Your task to perform on an android device: When is my next appointment? Image 0: 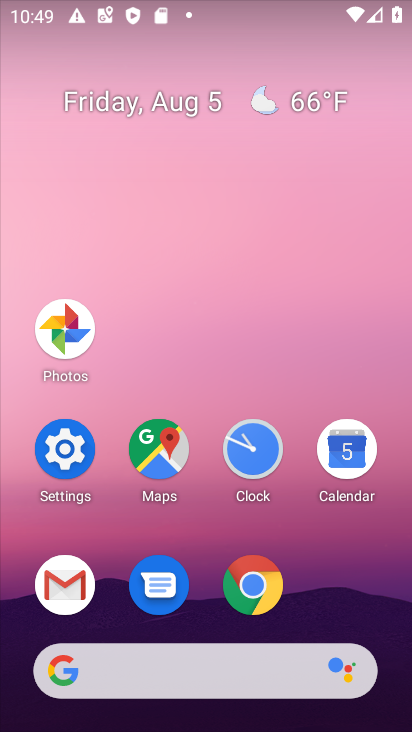
Step 0: click (350, 454)
Your task to perform on an android device: When is my next appointment? Image 1: 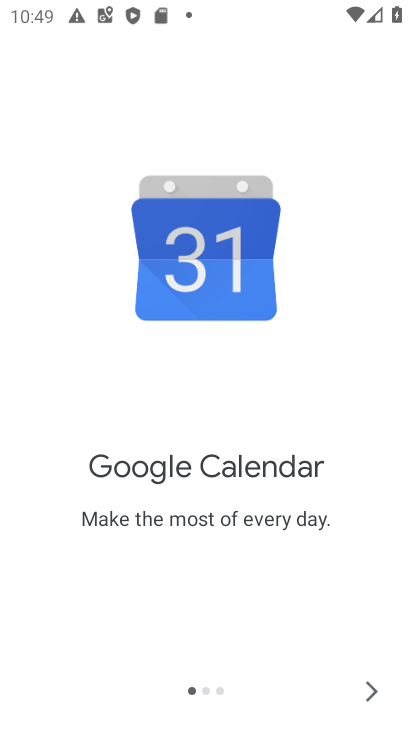
Step 1: click (372, 693)
Your task to perform on an android device: When is my next appointment? Image 2: 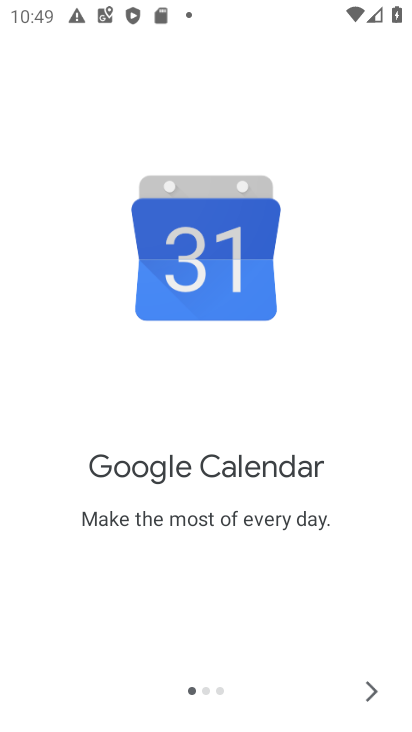
Step 2: click (372, 693)
Your task to perform on an android device: When is my next appointment? Image 3: 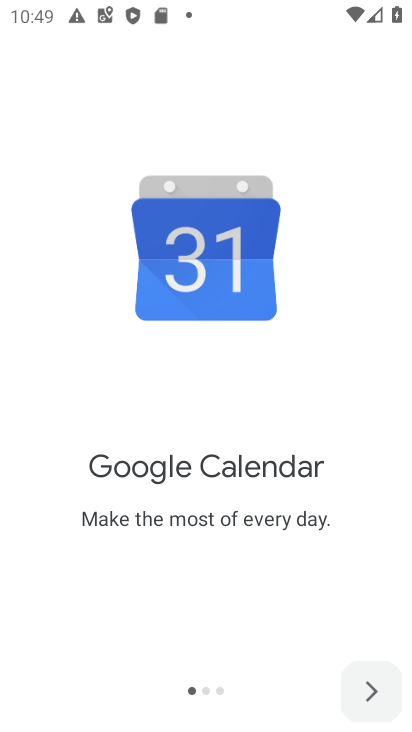
Step 3: click (372, 693)
Your task to perform on an android device: When is my next appointment? Image 4: 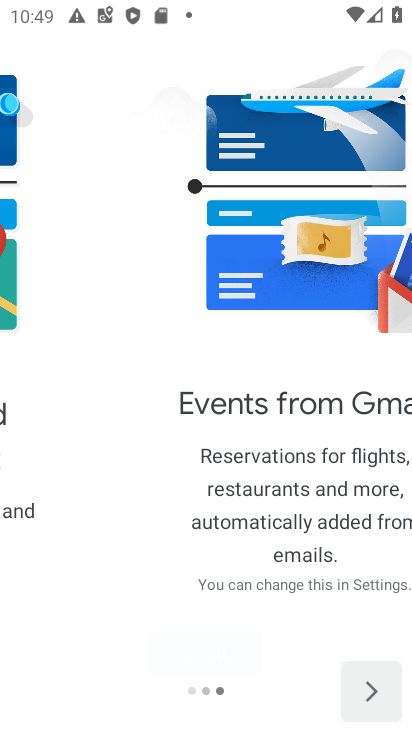
Step 4: click (372, 693)
Your task to perform on an android device: When is my next appointment? Image 5: 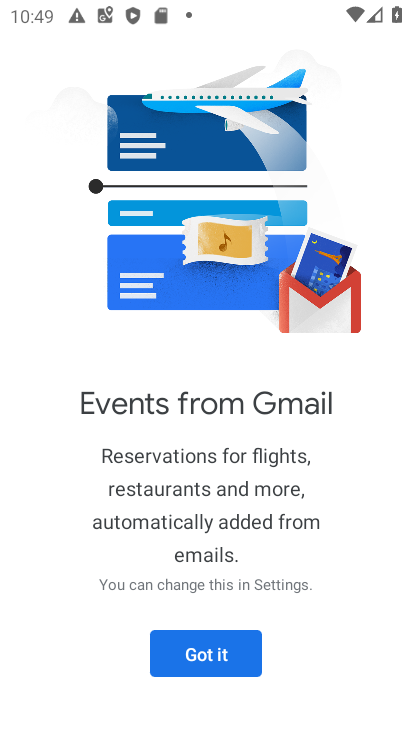
Step 5: click (222, 646)
Your task to perform on an android device: When is my next appointment? Image 6: 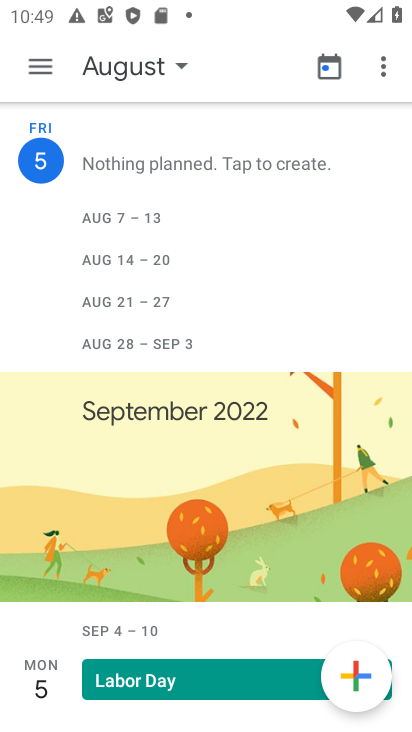
Step 6: click (37, 59)
Your task to perform on an android device: When is my next appointment? Image 7: 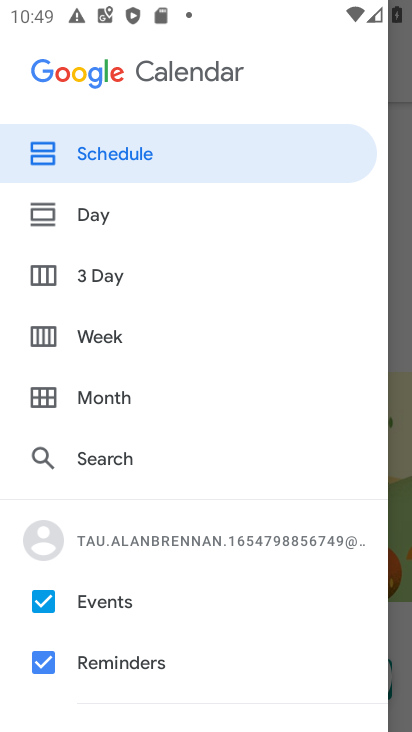
Step 7: click (93, 322)
Your task to perform on an android device: When is my next appointment? Image 8: 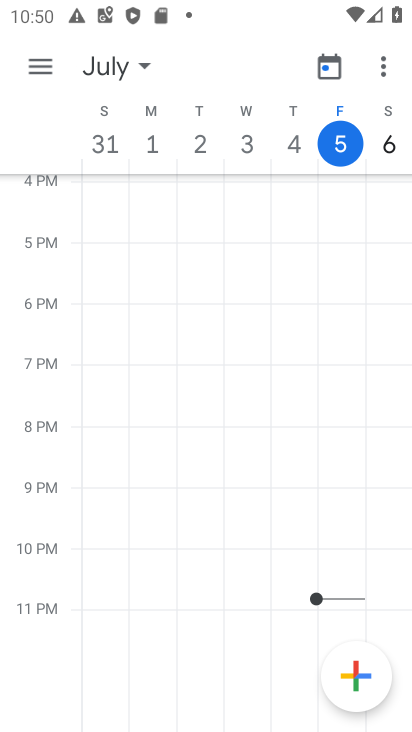
Step 8: task complete